Your task to perform on an android device: What is the recent news? Image 0: 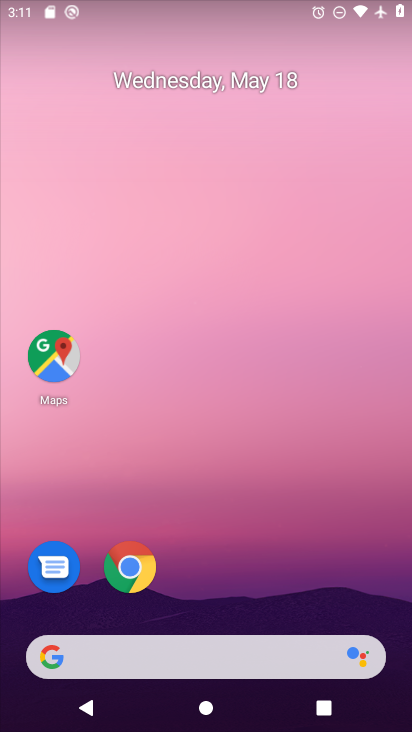
Step 0: drag from (196, 525) to (206, 277)
Your task to perform on an android device: What is the recent news? Image 1: 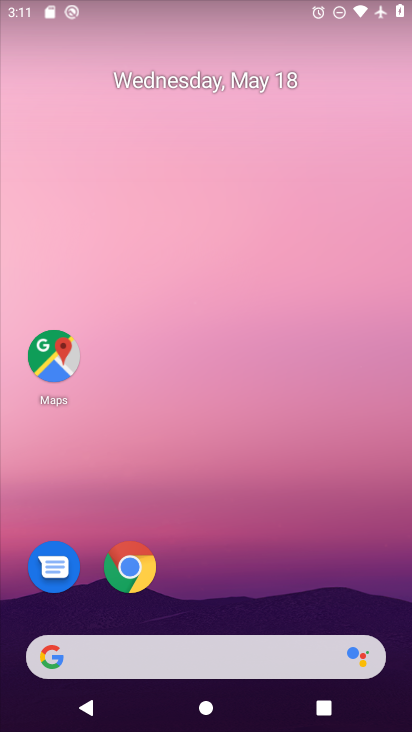
Step 1: click (122, 576)
Your task to perform on an android device: What is the recent news? Image 2: 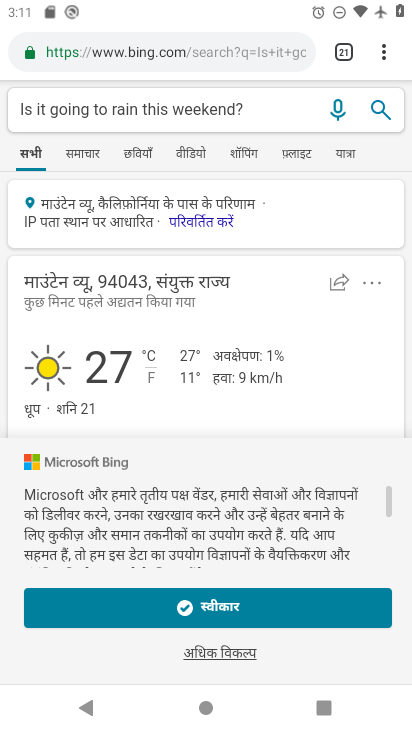
Step 2: click (377, 50)
Your task to perform on an android device: What is the recent news? Image 3: 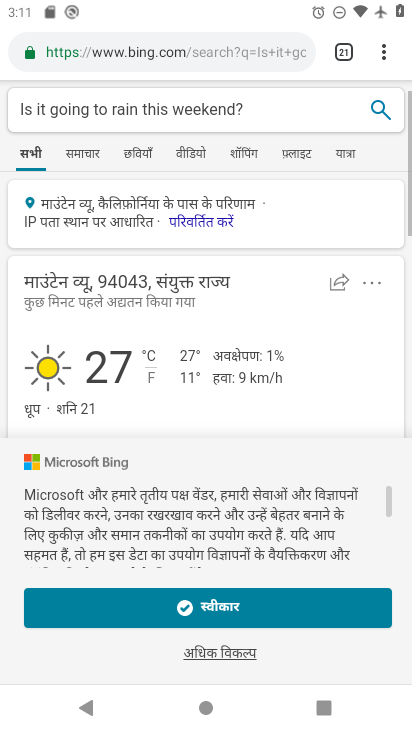
Step 3: click (369, 50)
Your task to perform on an android device: What is the recent news? Image 4: 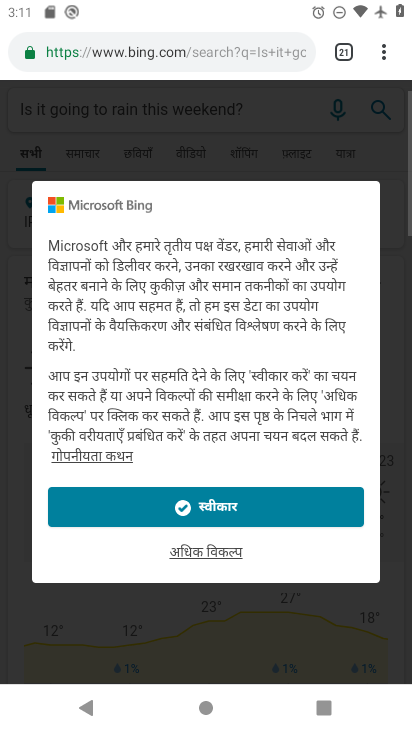
Step 4: click (355, 54)
Your task to perform on an android device: What is the recent news? Image 5: 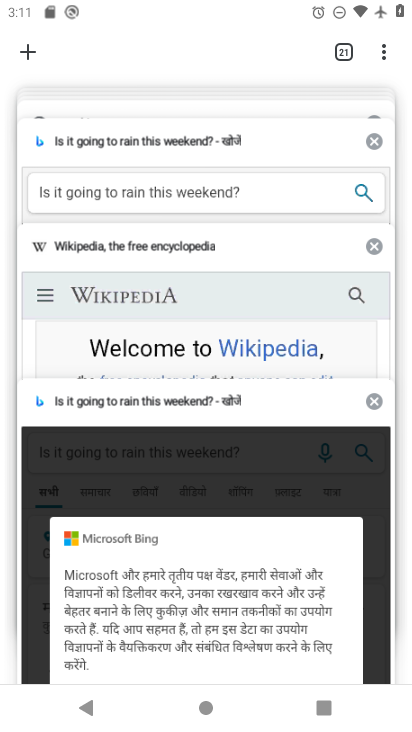
Step 5: click (23, 34)
Your task to perform on an android device: What is the recent news? Image 6: 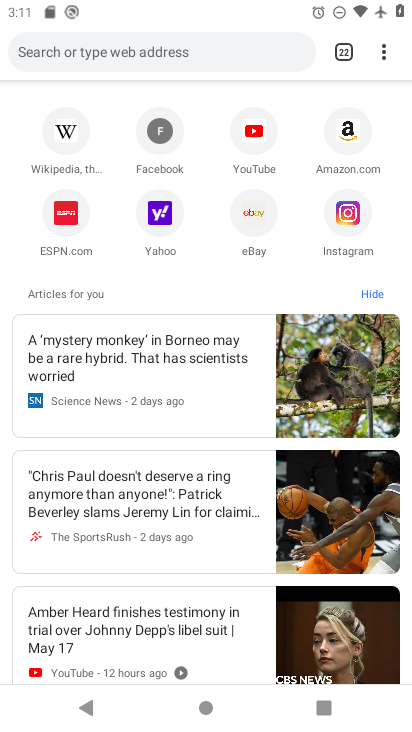
Step 6: click (145, 39)
Your task to perform on an android device: What is the recent news? Image 7: 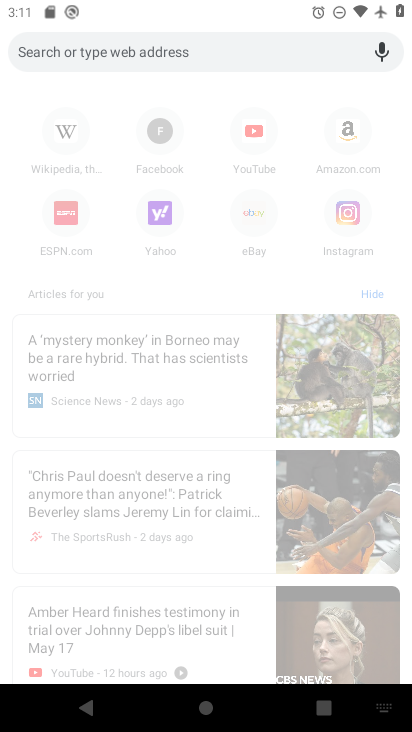
Step 7: type "the recent news?"
Your task to perform on an android device: What is the recent news? Image 8: 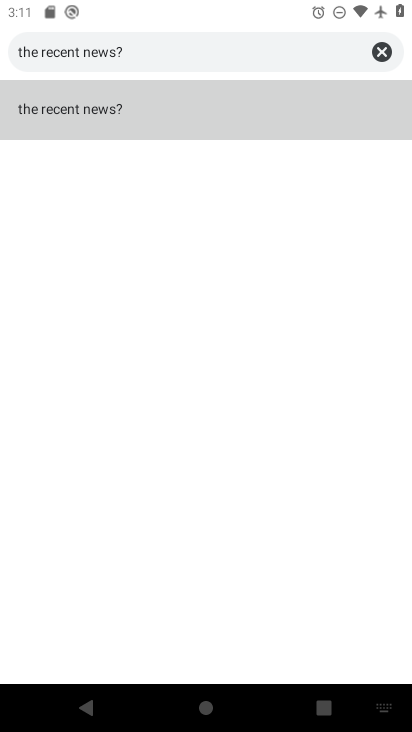
Step 8: click (237, 101)
Your task to perform on an android device: What is the recent news? Image 9: 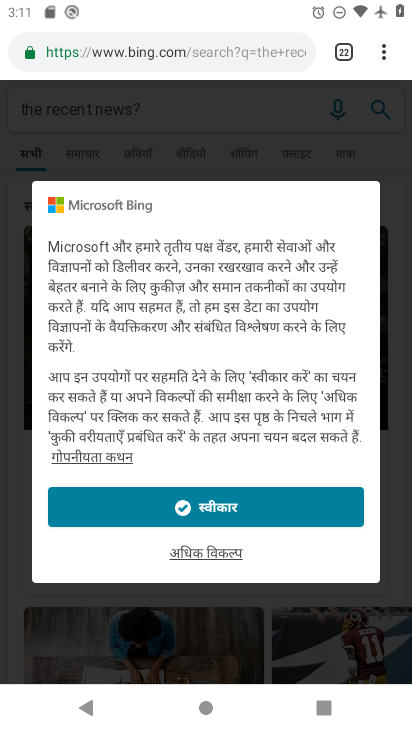
Step 9: click (217, 503)
Your task to perform on an android device: What is the recent news? Image 10: 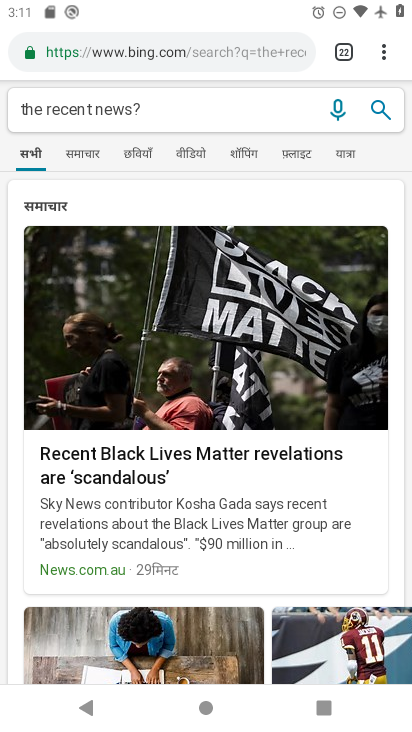
Step 10: task complete